Your task to perform on an android device: delete a single message in the gmail app Image 0: 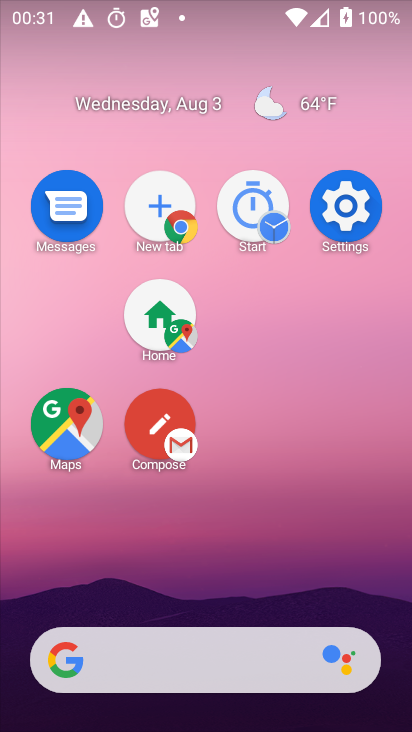
Step 0: drag from (248, 580) to (219, 319)
Your task to perform on an android device: delete a single message in the gmail app Image 1: 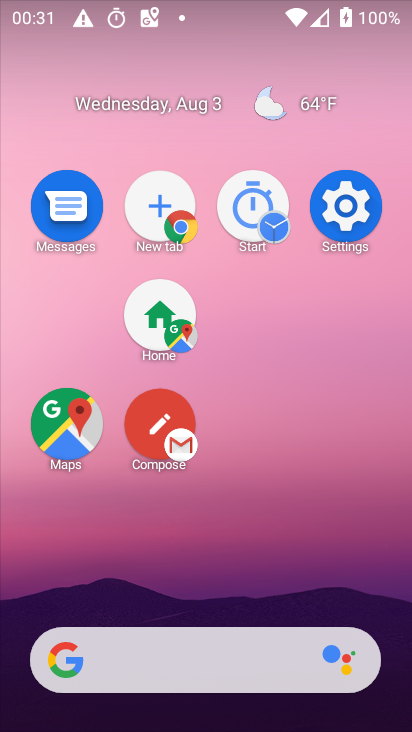
Step 1: drag from (168, 227) to (155, 158)
Your task to perform on an android device: delete a single message in the gmail app Image 2: 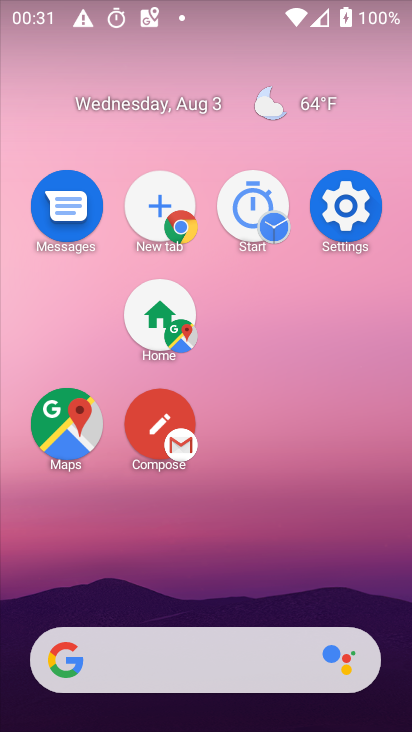
Step 2: drag from (254, 693) to (218, 163)
Your task to perform on an android device: delete a single message in the gmail app Image 3: 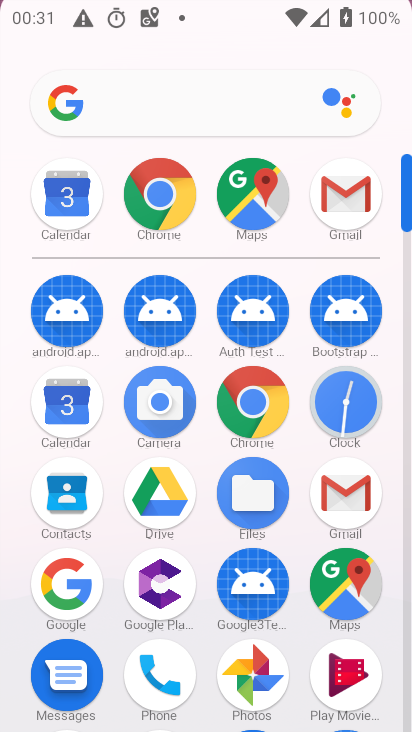
Step 3: drag from (228, 168) to (215, 57)
Your task to perform on an android device: delete a single message in the gmail app Image 4: 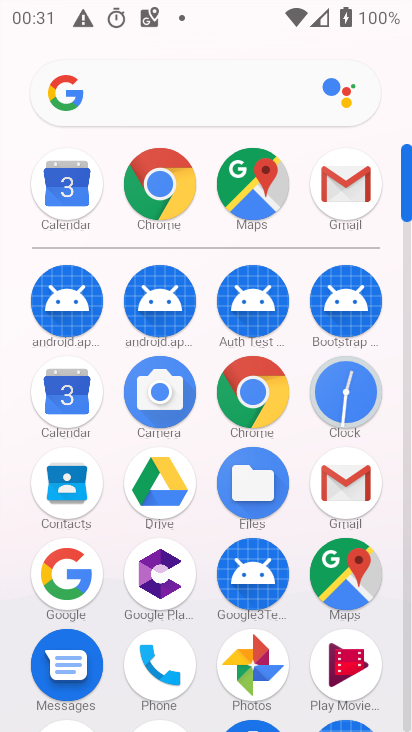
Step 4: click (342, 185)
Your task to perform on an android device: delete a single message in the gmail app Image 5: 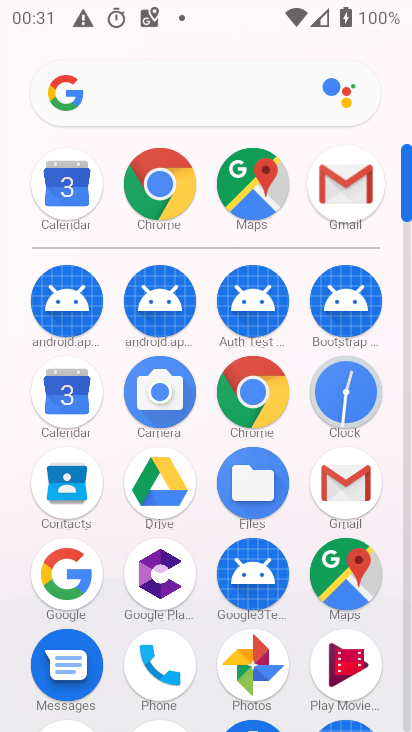
Step 5: click (344, 184)
Your task to perform on an android device: delete a single message in the gmail app Image 6: 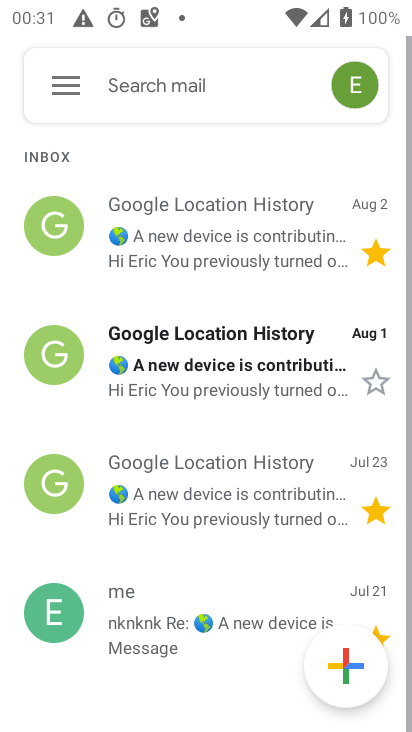
Step 6: click (185, 246)
Your task to perform on an android device: delete a single message in the gmail app Image 7: 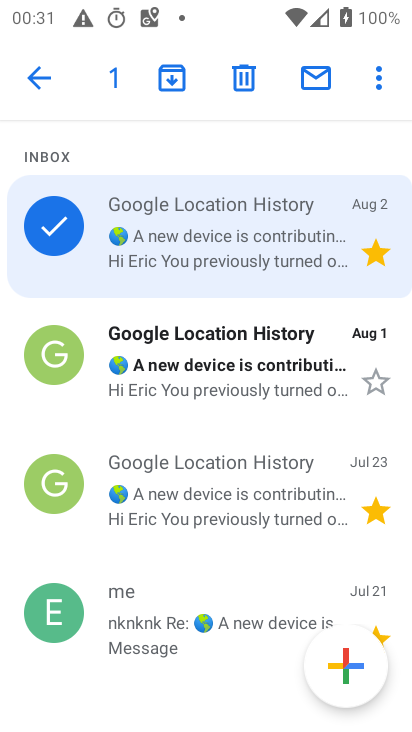
Step 7: click (240, 79)
Your task to perform on an android device: delete a single message in the gmail app Image 8: 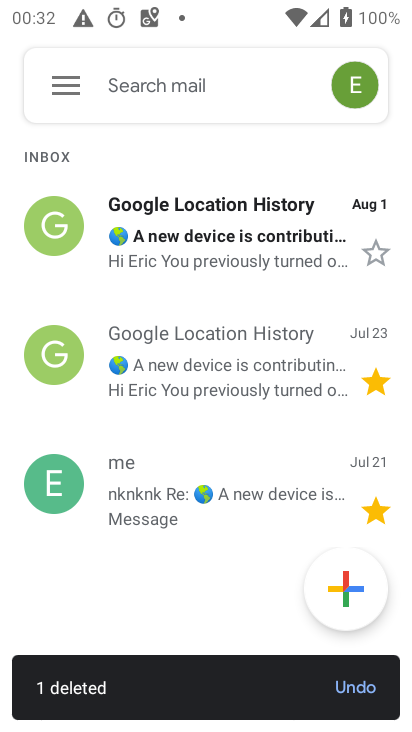
Step 8: task complete